Your task to perform on an android device: add a contact Image 0: 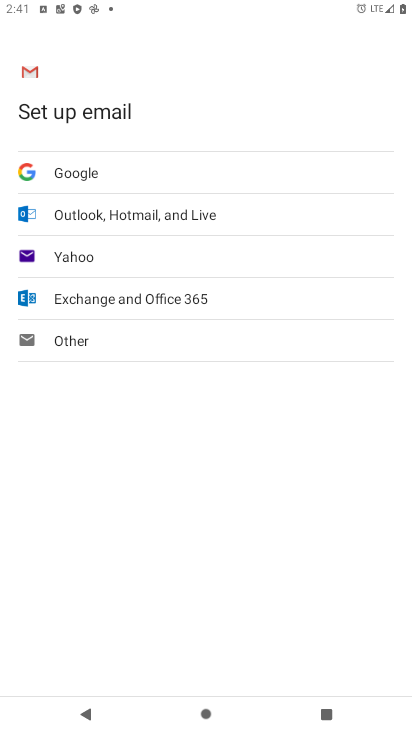
Step 0: press home button
Your task to perform on an android device: add a contact Image 1: 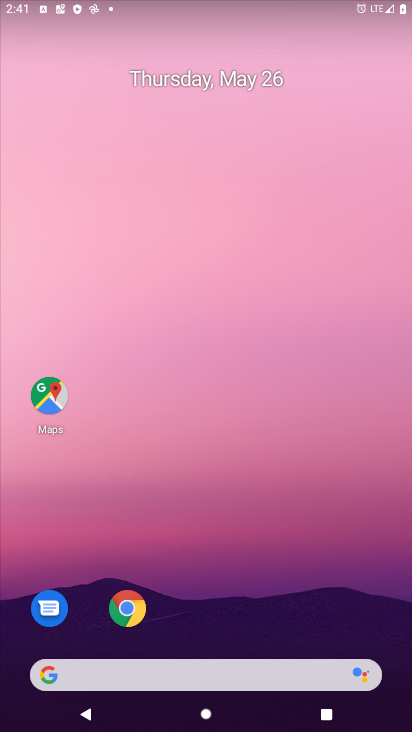
Step 1: drag from (351, 614) to (341, 141)
Your task to perform on an android device: add a contact Image 2: 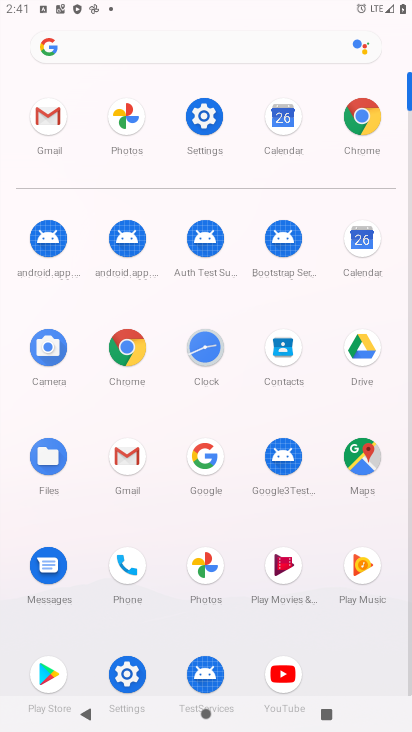
Step 2: click (284, 347)
Your task to perform on an android device: add a contact Image 3: 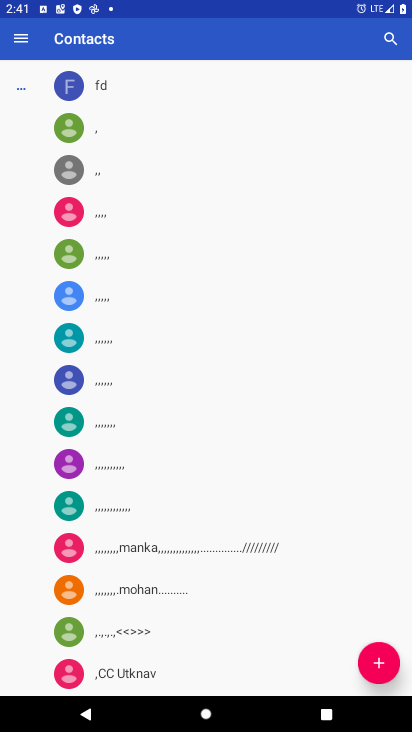
Step 3: click (380, 661)
Your task to perform on an android device: add a contact Image 4: 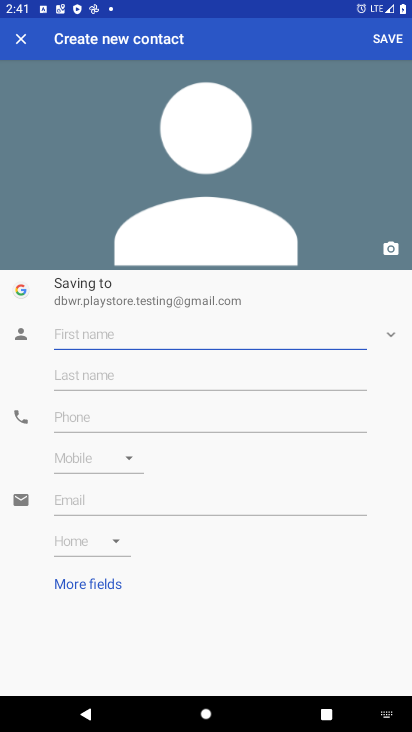
Step 4: type "hgtrtyu"
Your task to perform on an android device: add a contact Image 5: 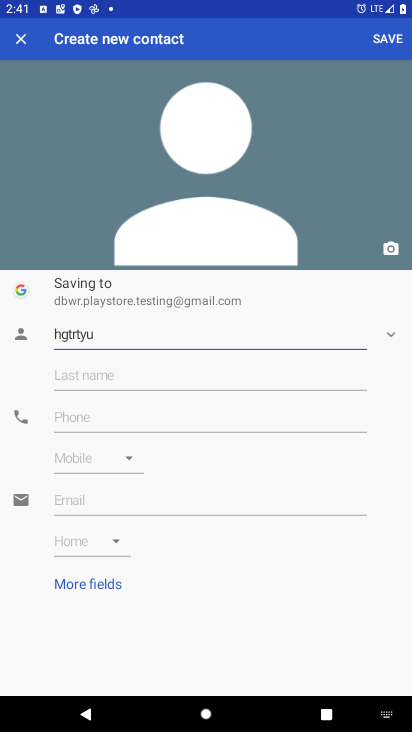
Step 5: click (74, 421)
Your task to perform on an android device: add a contact Image 6: 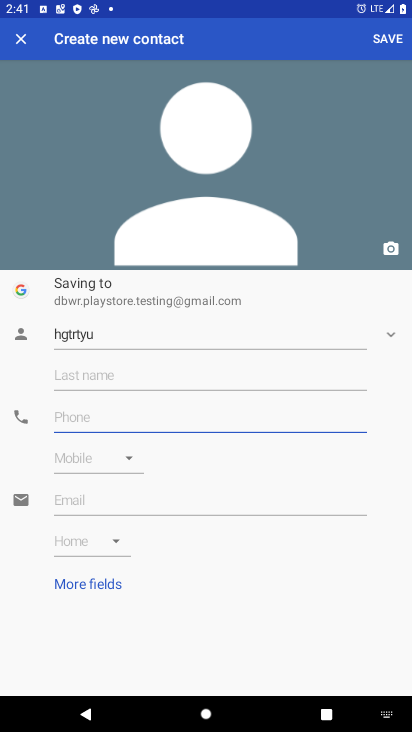
Step 6: type "9876512345"
Your task to perform on an android device: add a contact Image 7: 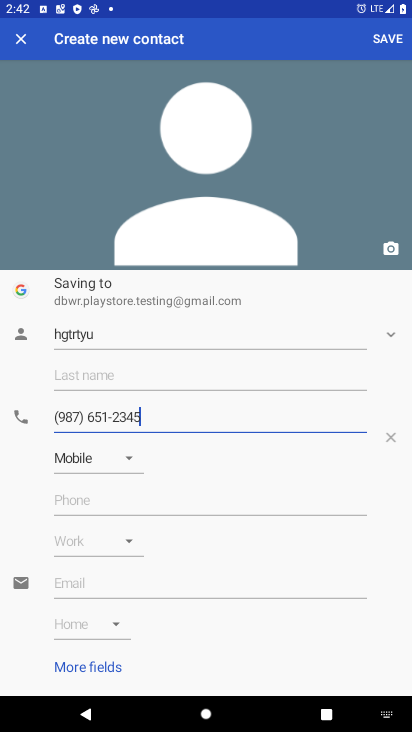
Step 7: click (124, 447)
Your task to perform on an android device: add a contact Image 8: 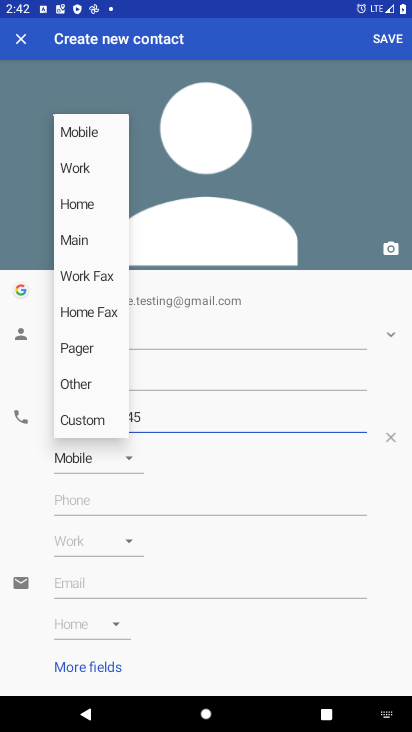
Step 8: click (71, 205)
Your task to perform on an android device: add a contact Image 9: 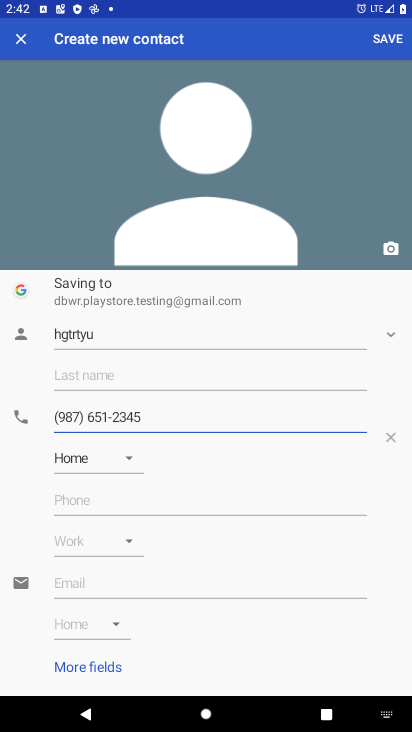
Step 9: click (390, 36)
Your task to perform on an android device: add a contact Image 10: 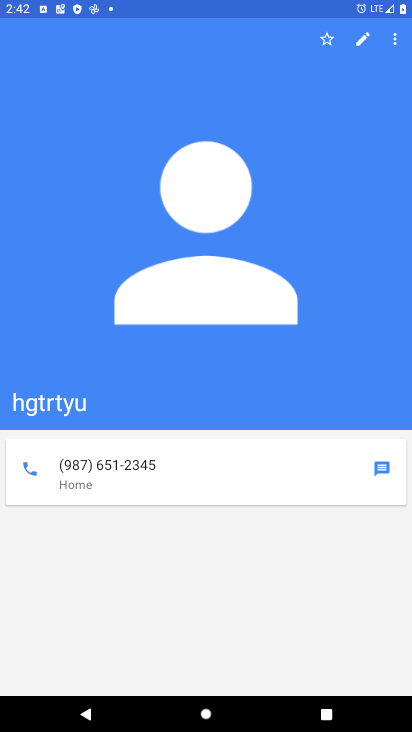
Step 10: task complete